Your task to perform on an android device: find which apps use the phone's location Image 0: 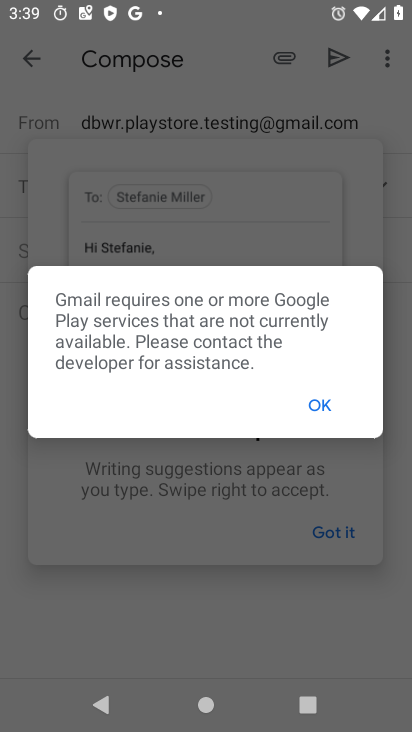
Step 0: press home button
Your task to perform on an android device: find which apps use the phone's location Image 1: 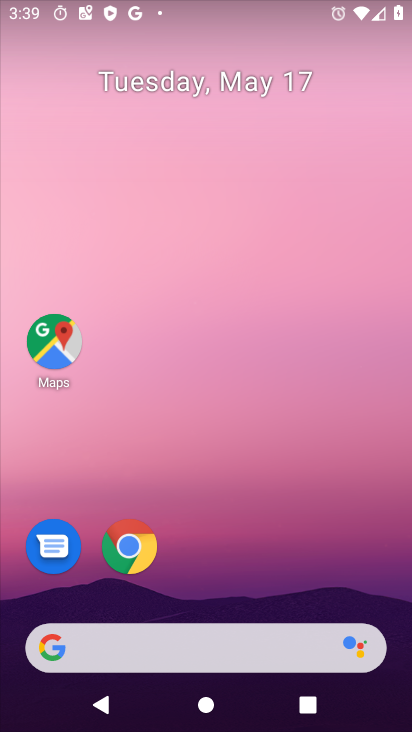
Step 1: drag from (392, 683) to (385, 293)
Your task to perform on an android device: find which apps use the phone's location Image 2: 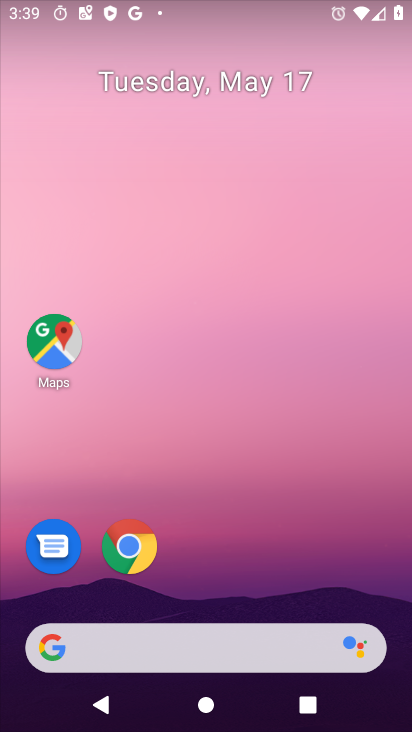
Step 2: drag from (394, 679) to (392, 258)
Your task to perform on an android device: find which apps use the phone's location Image 3: 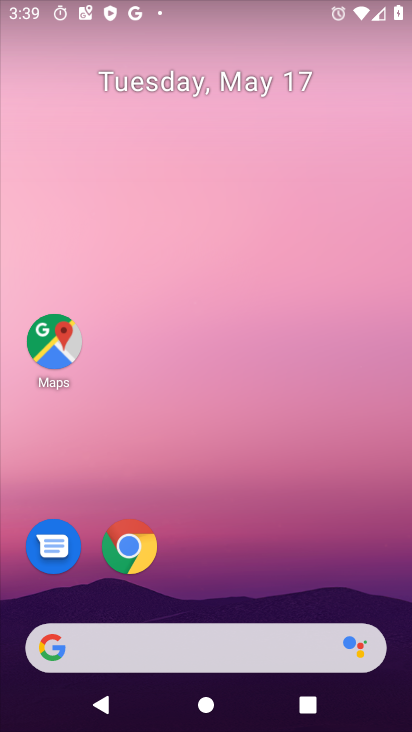
Step 3: drag from (405, 699) to (385, 331)
Your task to perform on an android device: find which apps use the phone's location Image 4: 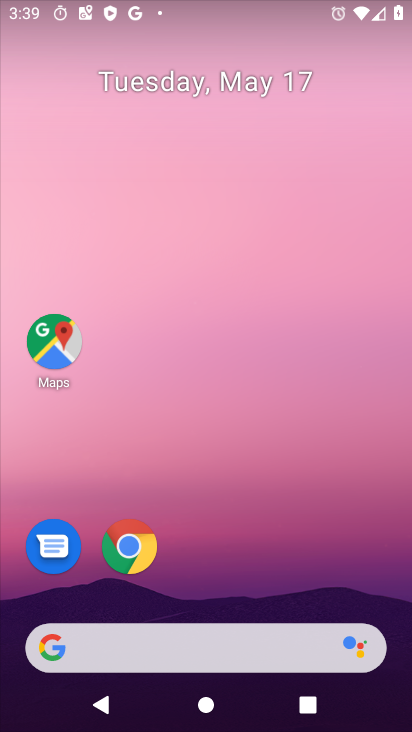
Step 4: drag from (400, 689) to (390, 171)
Your task to perform on an android device: find which apps use the phone's location Image 5: 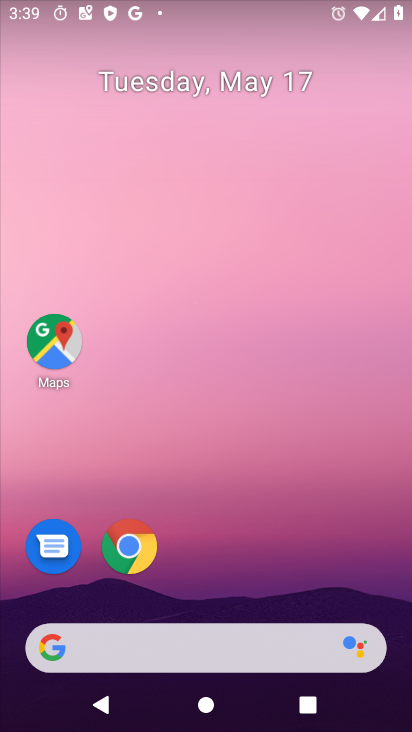
Step 5: drag from (403, 698) to (373, 177)
Your task to perform on an android device: find which apps use the phone's location Image 6: 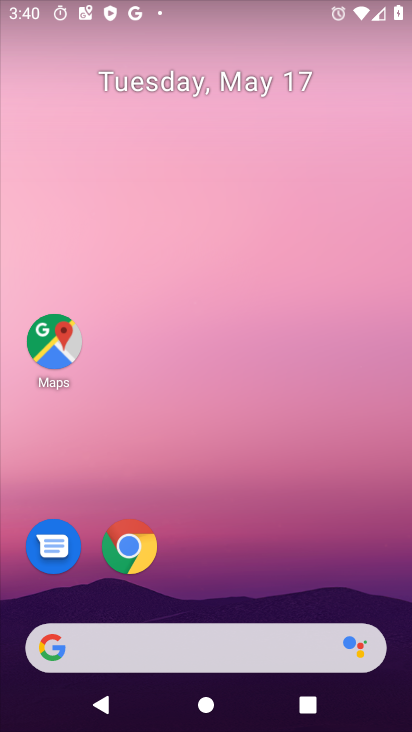
Step 6: drag from (400, 680) to (385, 309)
Your task to perform on an android device: find which apps use the phone's location Image 7: 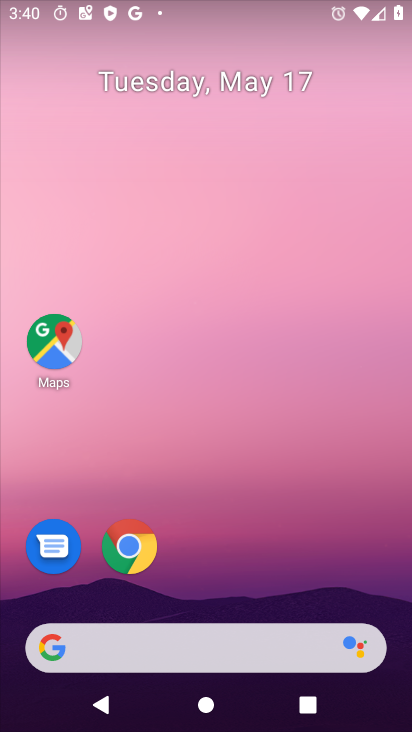
Step 7: drag from (405, 669) to (411, 139)
Your task to perform on an android device: find which apps use the phone's location Image 8: 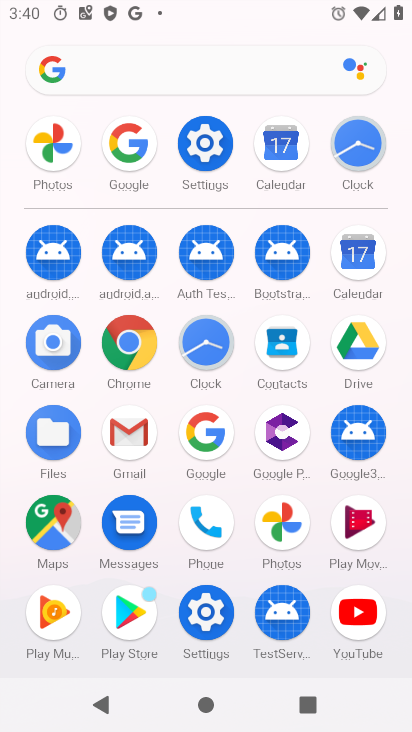
Step 8: click (197, 144)
Your task to perform on an android device: find which apps use the phone's location Image 9: 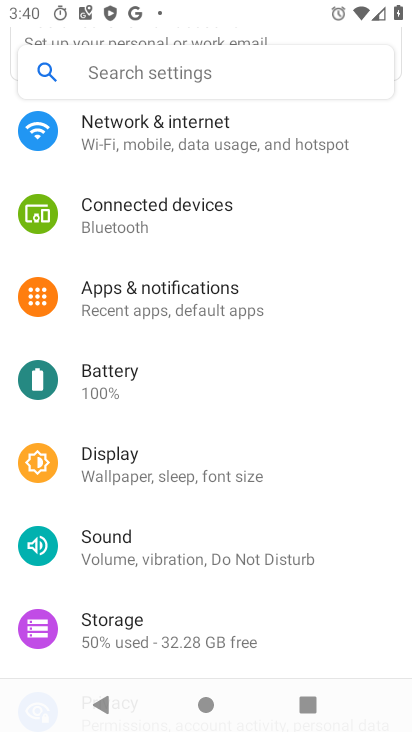
Step 9: drag from (293, 597) to (295, 399)
Your task to perform on an android device: find which apps use the phone's location Image 10: 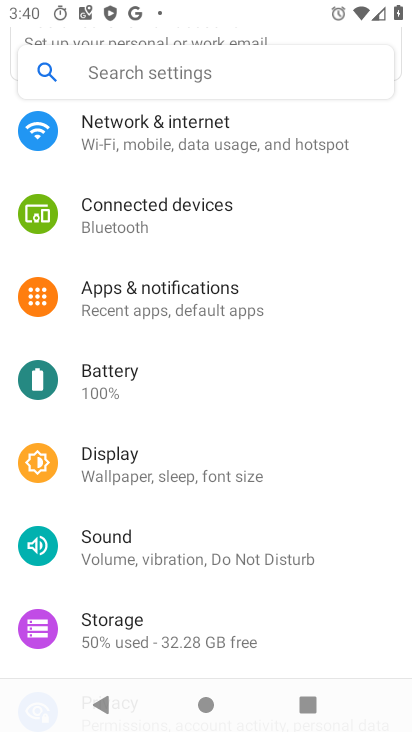
Step 10: drag from (310, 628) to (297, 445)
Your task to perform on an android device: find which apps use the phone's location Image 11: 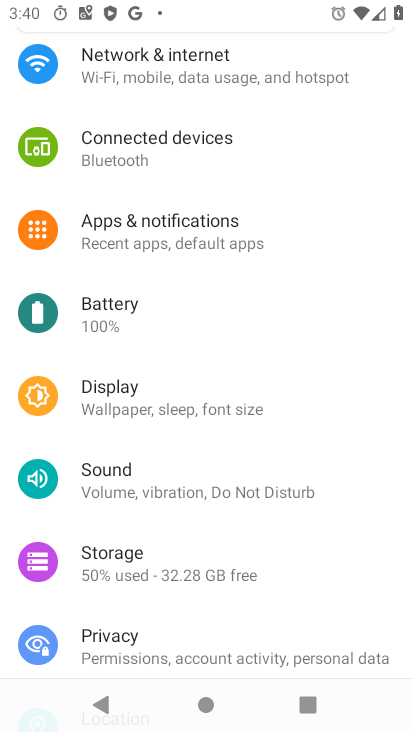
Step 11: drag from (363, 596) to (353, 337)
Your task to perform on an android device: find which apps use the phone's location Image 12: 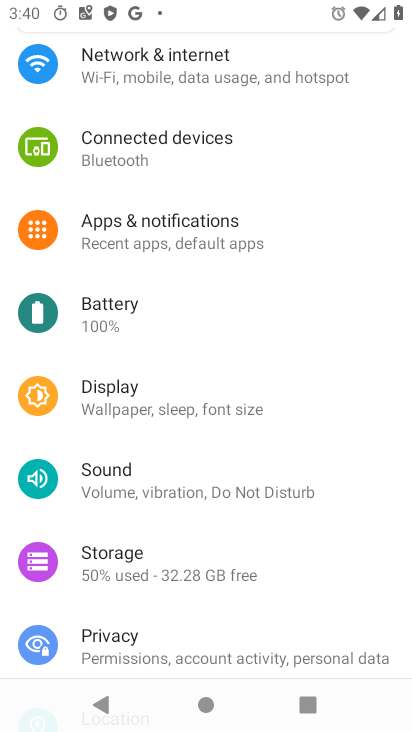
Step 12: drag from (355, 609) to (353, 349)
Your task to perform on an android device: find which apps use the phone's location Image 13: 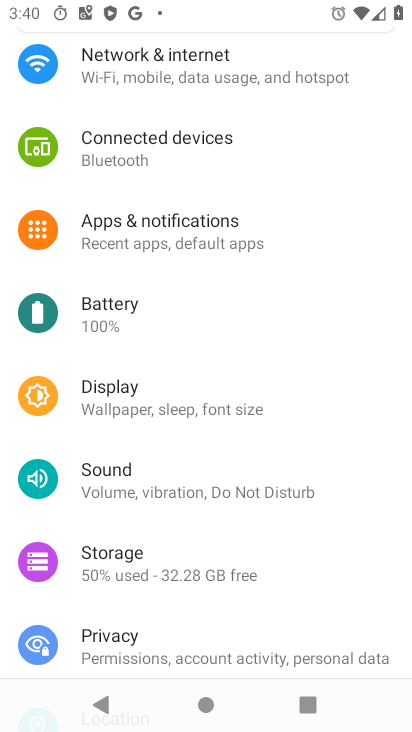
Step 13: drag from (360, 616) to (351, 466)
Your task to perform on an android device: find which apps use the phone's location Image 14: 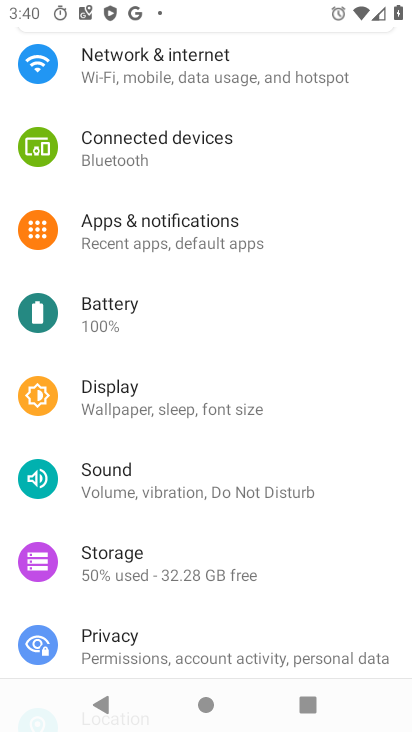
Step 14: drag from (373, 638) to (348, 305)
Your task to perform on an android device: find which apps use the phone's location Image 15: 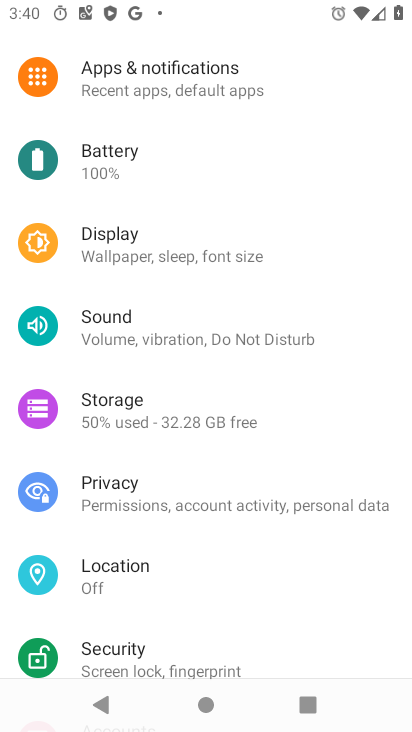
Step 15: click (94, 571)
Your task to perform on an android device: find which apps use the phone's location Image 16: 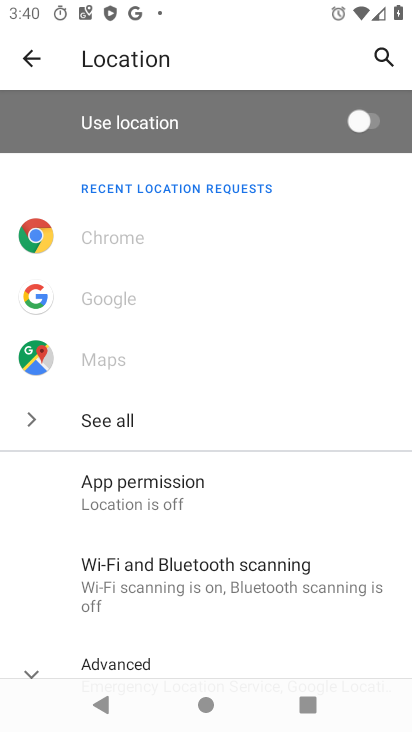
Step 16: click (85, 487)
Your task to perform on an android device: find which apps use the phone's location Image 17: 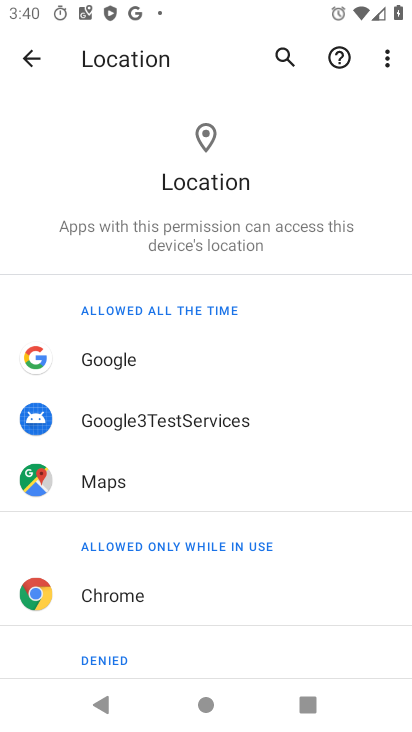
Step 17: task complete